Your task to perform on an android device: Go to ESPN.com Image 0: 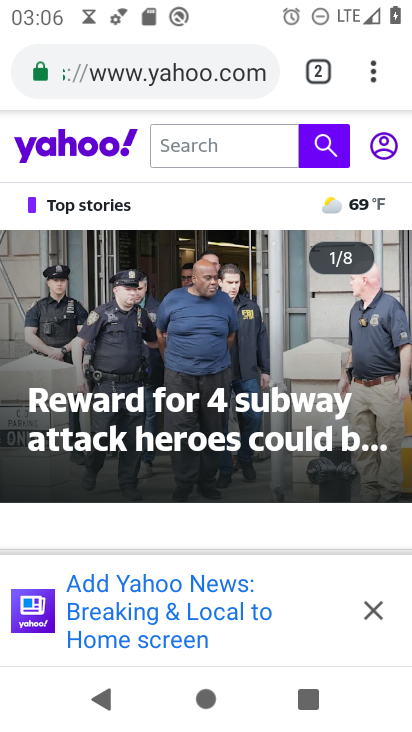
Step 0: press home button
Your task to perform on an android device: Go to ESPN.com Image 1: 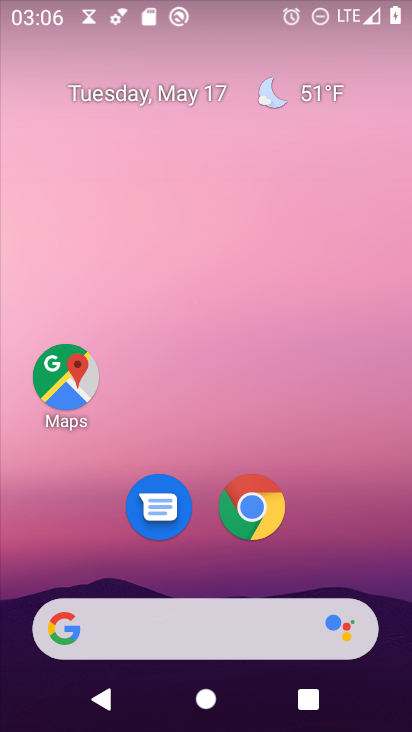
Step 1: click (257, 509)
Your task to perform on an android device: Go to ESPN.com Image 2: 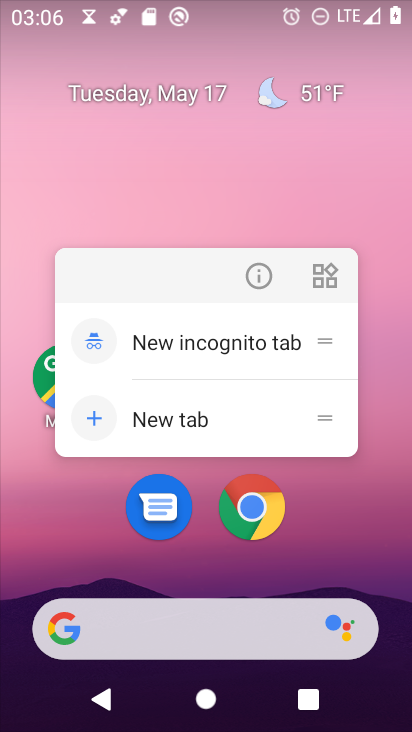
Step 2: click (257, 509)
Your task to perform on an android device: Go to ESPN.com Image 3: 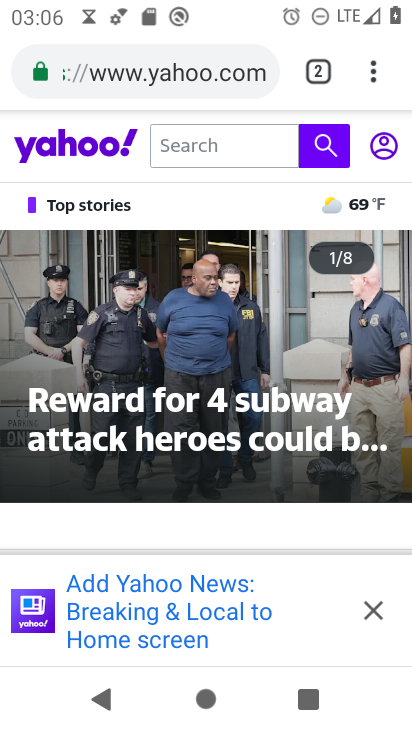
Step 3: click (125, 69)
Your task to perform on an android device: Go to ESPN.com Image 4: 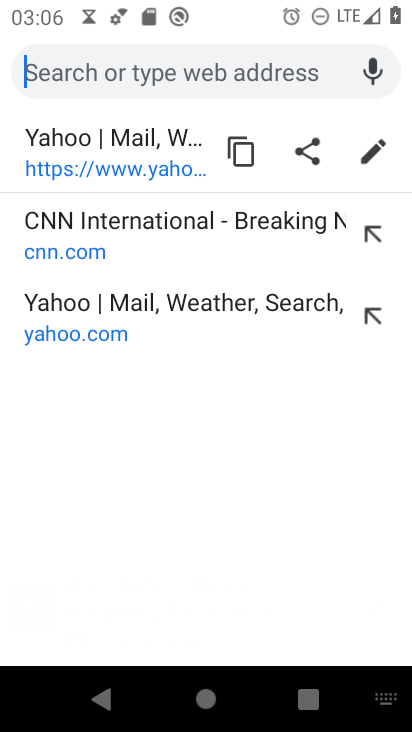
Step 4: type "ESPN.com"
Your task to perform on an android device: Go to ESPN.com Image 5: 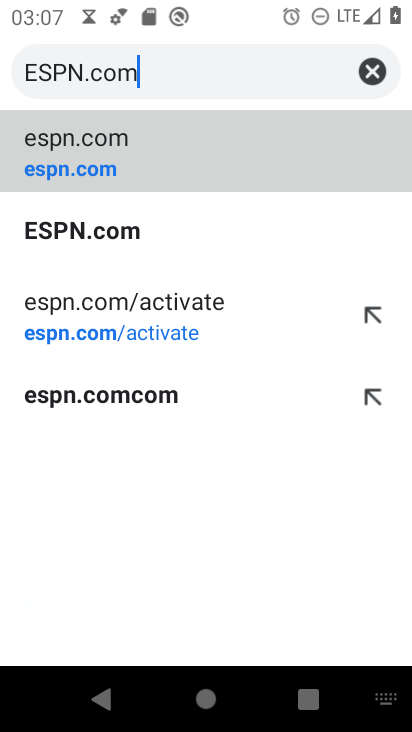
Step 5: click (104, 143)
Your task to perform on an android device: Go to ESPN.com Image 6: 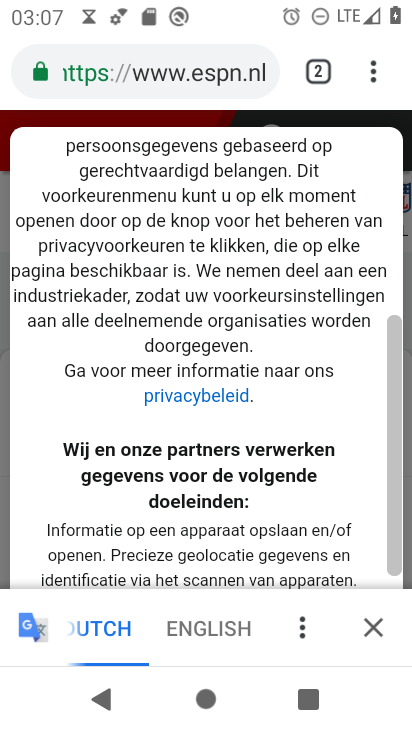
Step 6: task complete